Your task to perform on an android device: turn on the 24-hour format for clock Image 0: 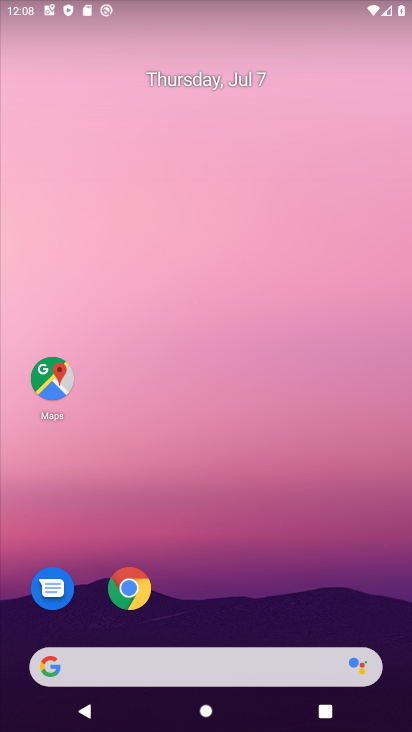
Step 0: drag from (247, 703) to (240, 68)
Your task to perform on an android device: turn on the 24-hour format for clock Image 1: 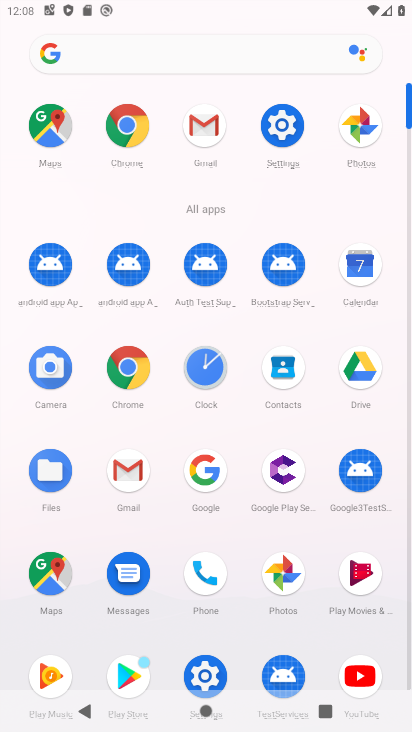
Step 1: click (201, 372)
Your task to perform on an android device: turn on the 24-hour format for clock Image 2: 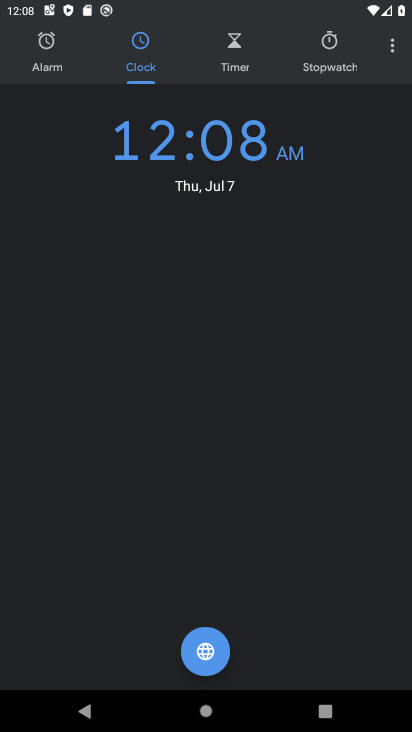
Step 2: click (393, 48)
Your task to perform on an android device: turn on the 24-hour format for clock Image 3: 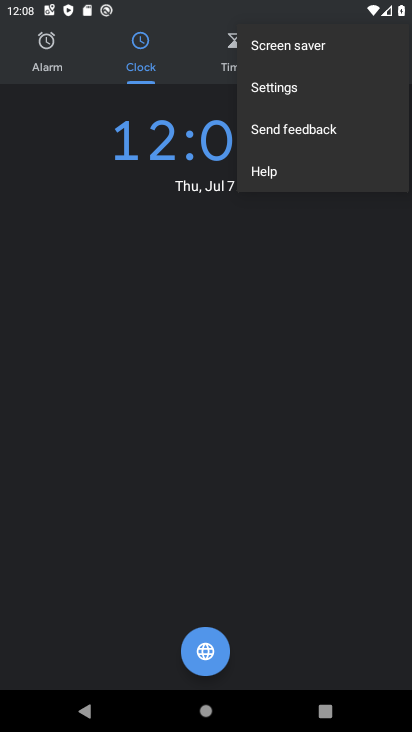
Step 3: click (278, 85)
Your task to perform on an android device: turn on the 24-hour format for clock Image 4: 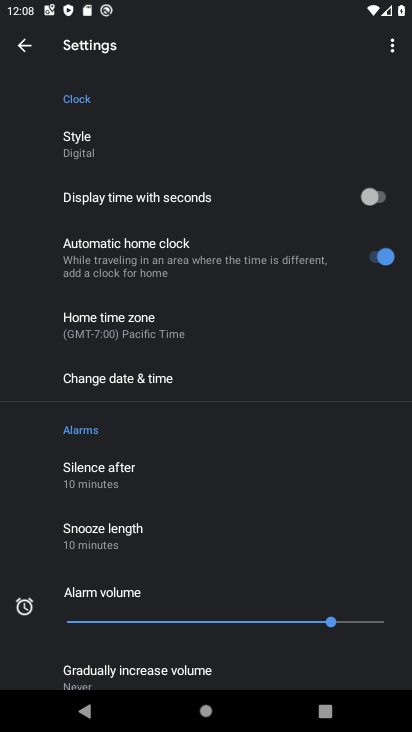
Step 4: click (126, 375)
Your task to perform on an android device: turn on the 24-hour format for clock Image 5: 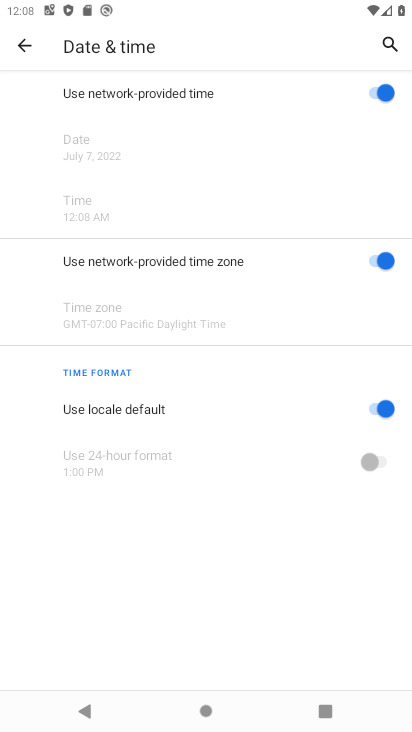
Step 5: click (382, 409)
Your task to perform on an android device: turn on the 24-hour format for clock Image 6: 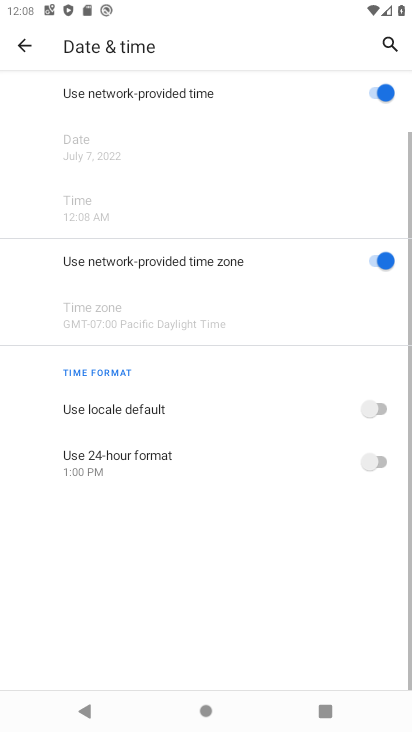
Step 6: click (383, 463)
Your task to perform on an android device: turn on the 24-hour format for clock Image 7: 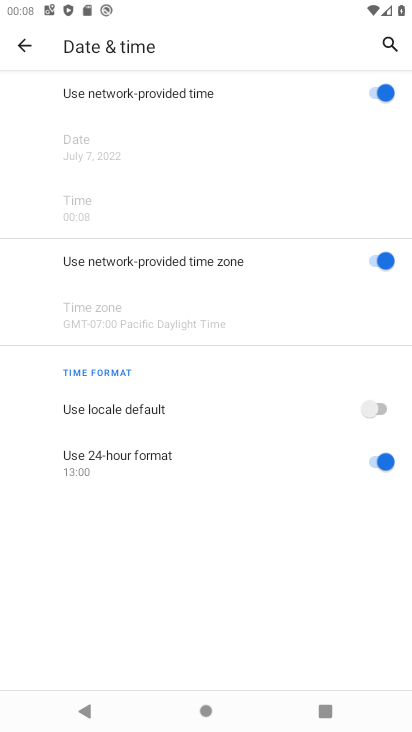
Step 7: task complete